Your task to perform on an android device: Open privacy settings Image 0: 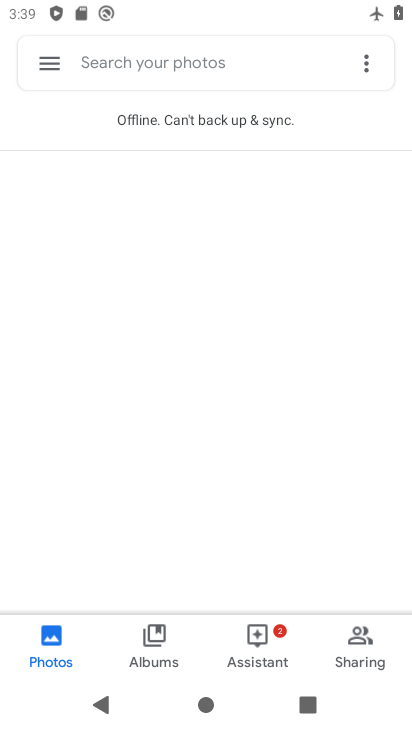
Step 0: press home button
Your task to perform on an android device: Open privacy settings Image 1: 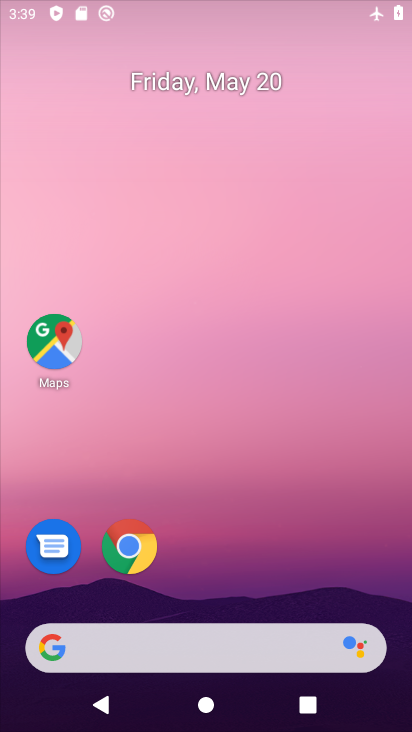
Step 1: drag from (221, 531) to (238, 109)
Your task to perform on an android device: Open privacy settings Image 2: 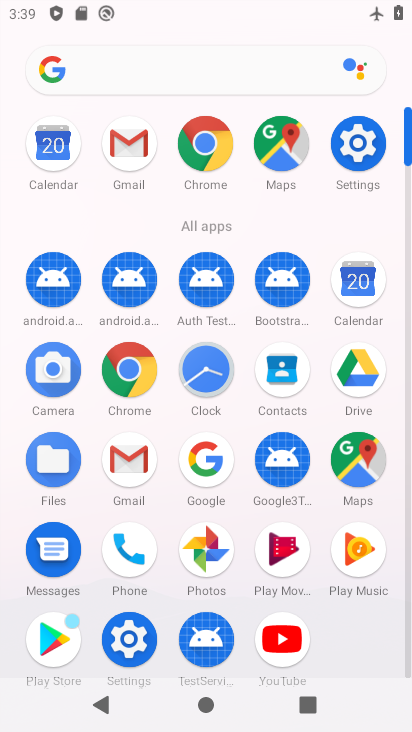
Step 2: click (366, 146)
Your task to perform on an android device: Open privacy settings Image 3: 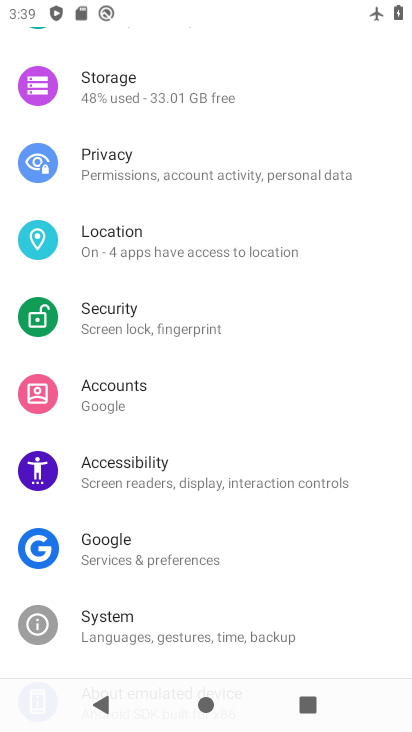
Step 3: click (164, 173)
Your task to perform on an android device: Open privacy settings Image 4: 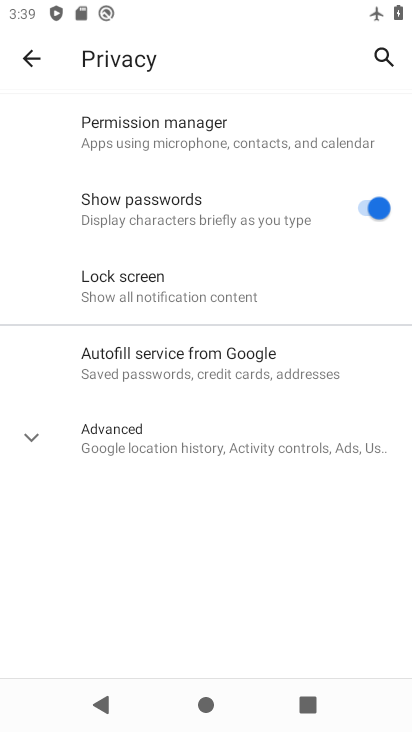
Step 4: task complete